Your task to perform on an android device: Open Chrome and go to the settings page Image 0: 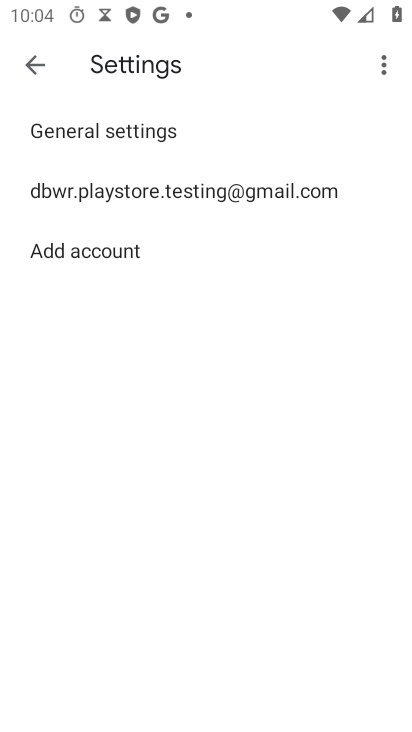
Step 0: press home button
Your task to perform on an android device: Open Chrome and go to the settings page Image 1: 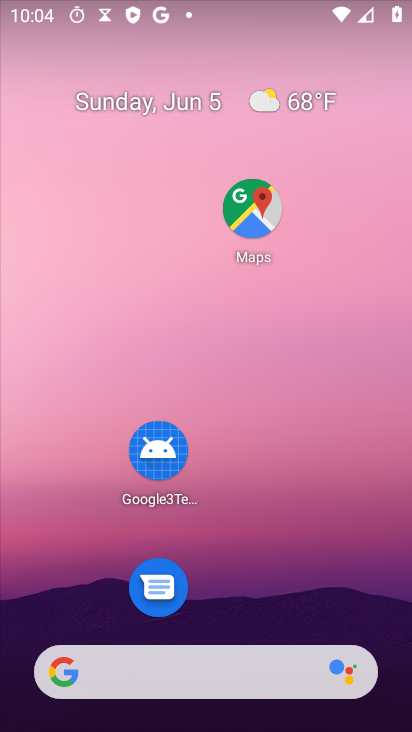
Step 1: drag from (271, 583) to (126, 74)
Your task to perform on an android device: Open Chrome and go to the settings page Image 2: 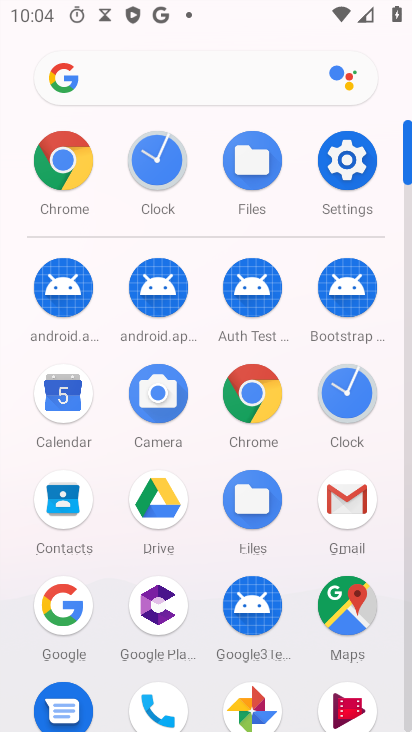
Step 2: click (62, 171)
Your task to perform on an android device: Open Chrome and go to the settings page Image 3: 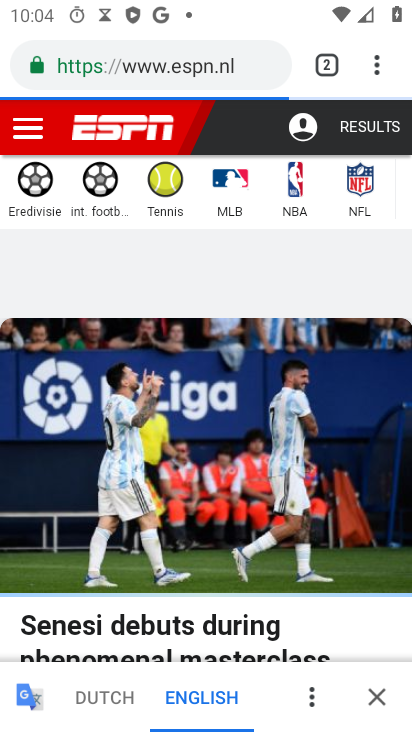
Step 3: click (373, 53)
Your task to perform on an android device: Open Chrome and go to the settings page Image 4: 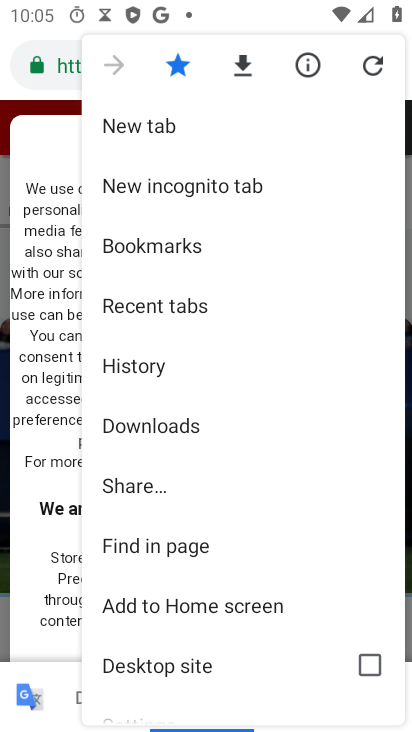
Step 4: drag from (222, 551) to (214, 29)
Your task to perform on an android device: Open Chrome and go to the settings page Image 5: 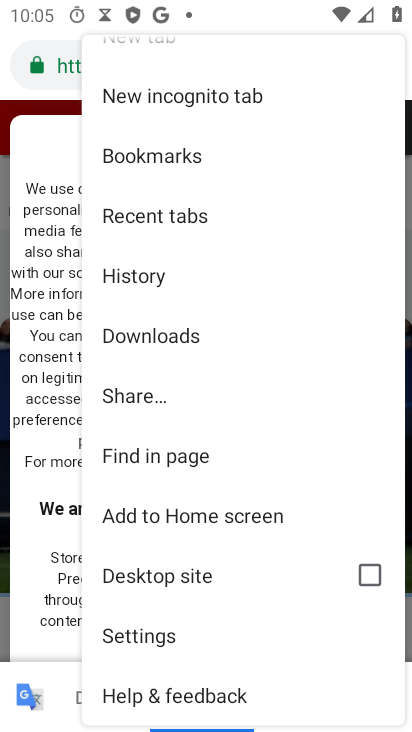
Step 5: click (150, 637)
Your task to perform on an android device: Open Chrome and go to the settings page Image 6: 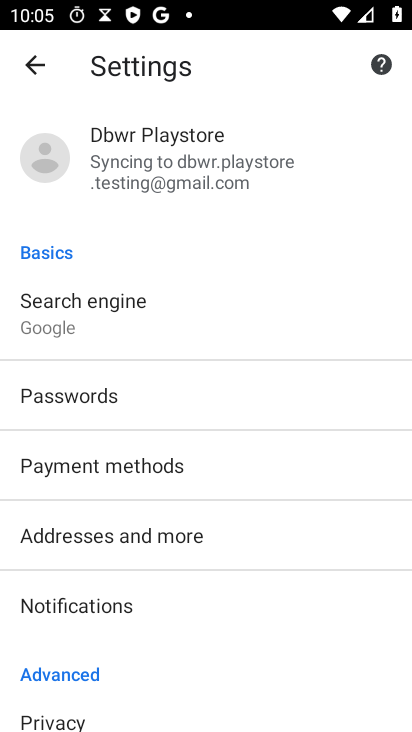
Step 6: click (96, 167)
Your task to perform on an android device: Open Chrome and go to the settings page Image 7: 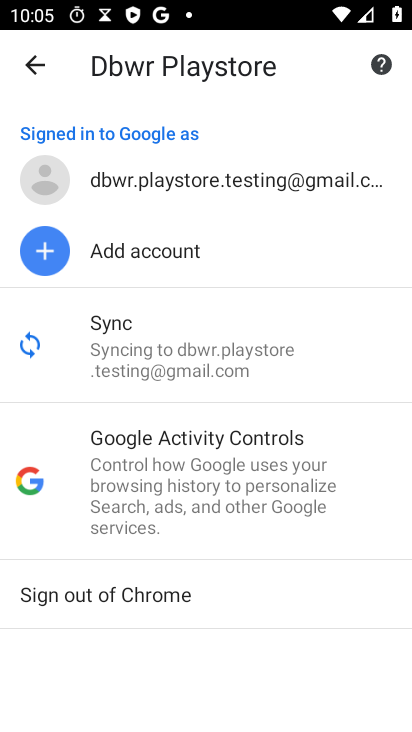
Step 7: click (26, 59)
Your task to perform on an android device: Open Chrome and go to the settings page Image 8: 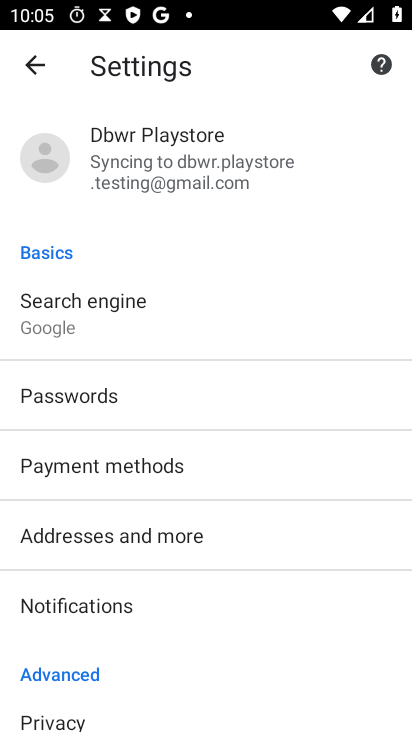
Step 8: task complete